Your task to perform on an android device: open device folders in google photos Image 0: 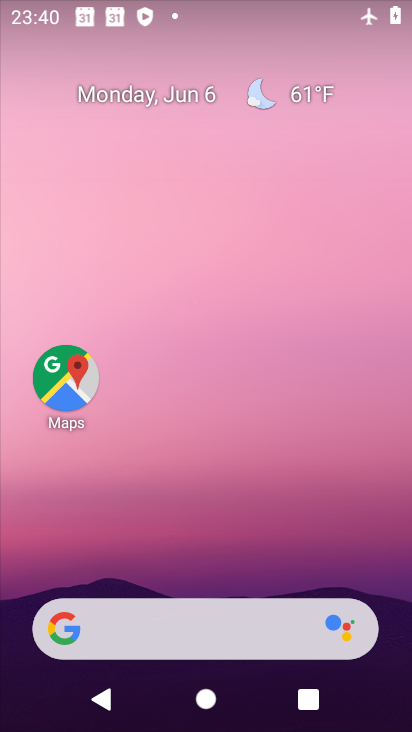
Step 0: drag from (206, 582) to (172, 100)
Your task to perform on an android device: open device folders in google photos Image 1: 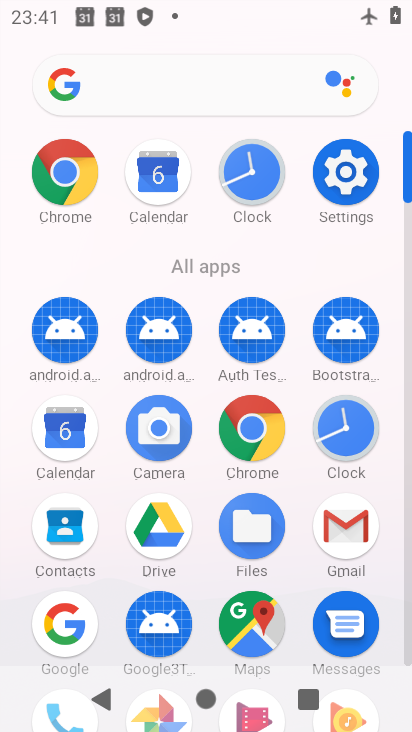
Step 1: drag from (105, 648) to (94, 243)
Your task to perform on an android device: open device folders in google photos Image 2: 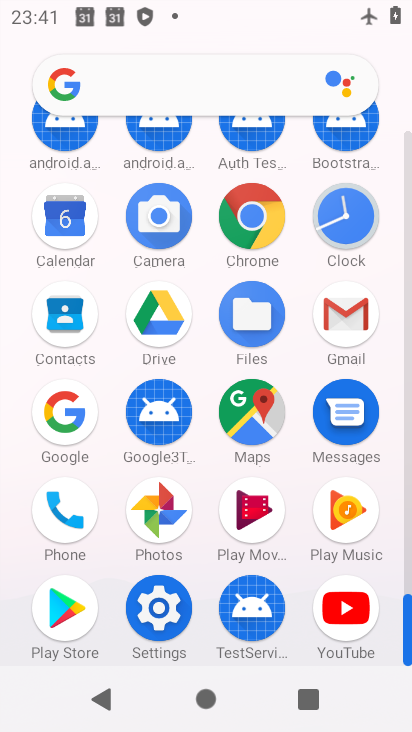
Step 2: click (157, 500)
Your task to perform on an android device: open device folders in google photos Image 3: 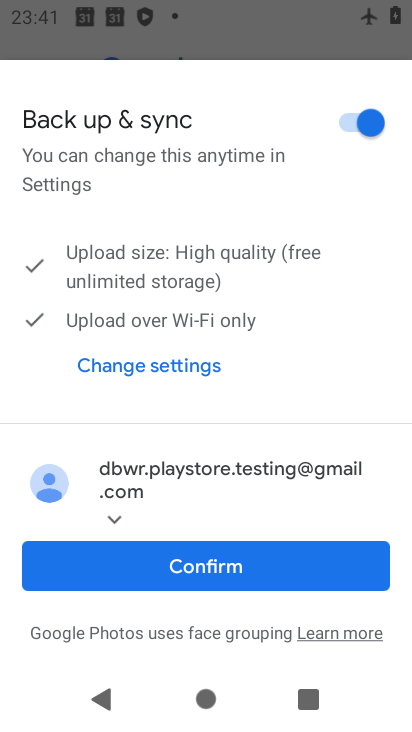
Step 3: click (209, 577)
Your task to perform on an android device: open device folders in google photos Image 4: 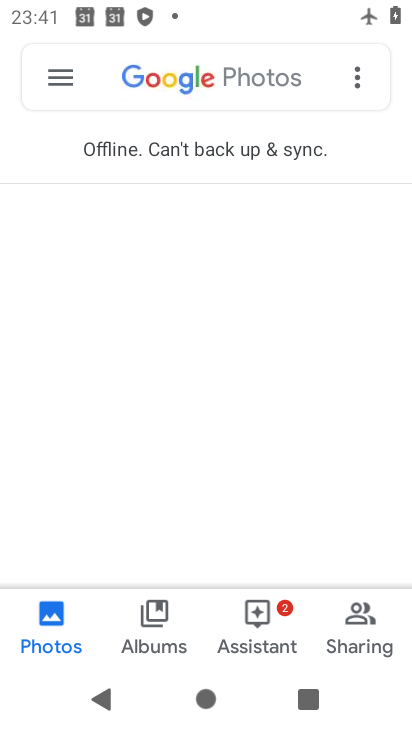
Step 4: click (57, 80)
Your task to perform on an android device: open device folders in google photos Image 5: 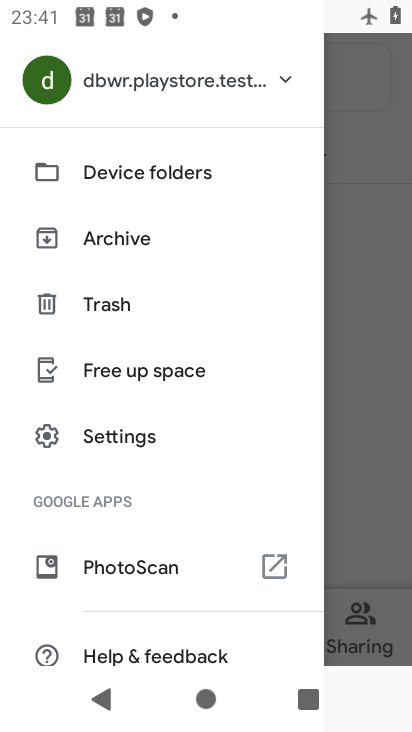
Step 5: click (131, 182)
Your task to perform on an android device: open device folders in google photos Image 6: 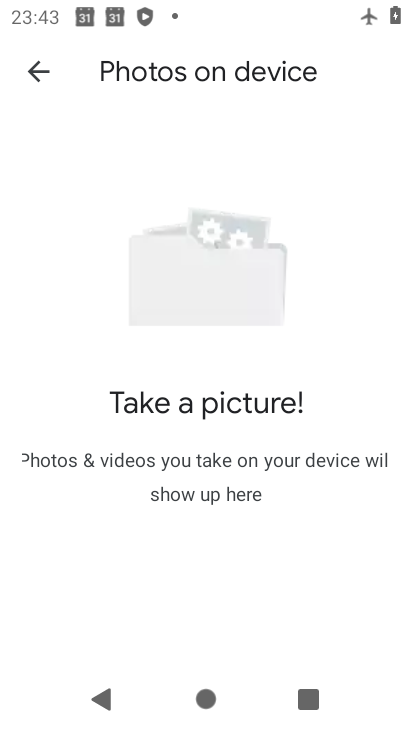
Step 6: task complete